Your task to perform on an android device: Open ESPN.com Image 0: 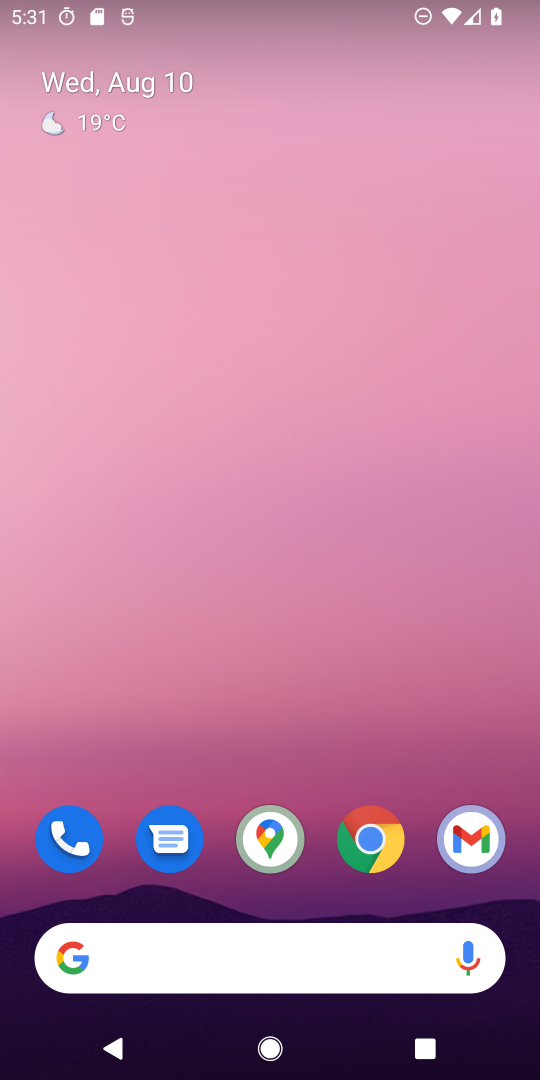
Step 0: click (148, 944)
Your task to perform on an android device: Open ESPN.com Image 1: 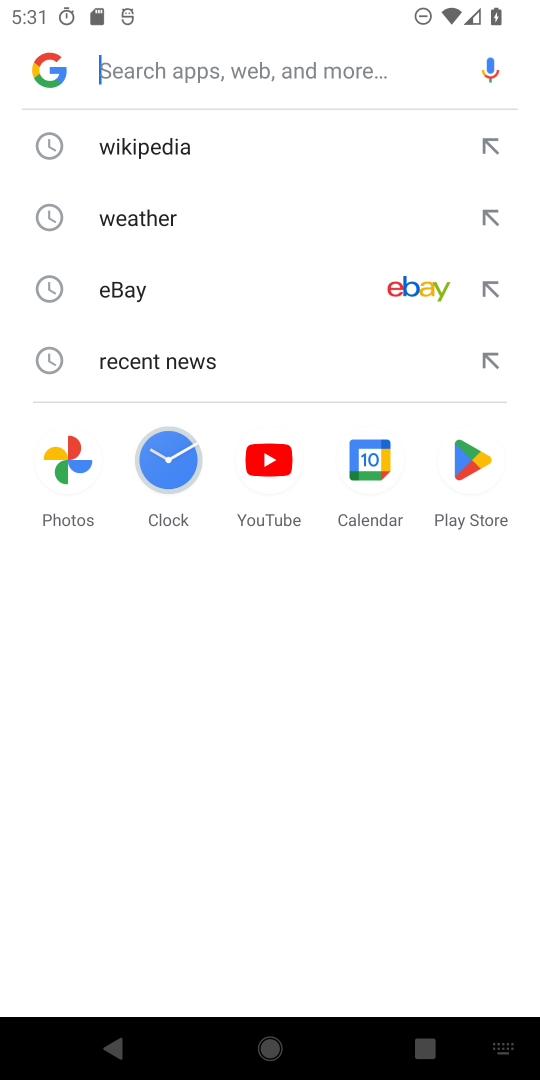
Step 1: type "ESPN.com"
Your task to perform on an android device: Open ESPN.com Image 2: 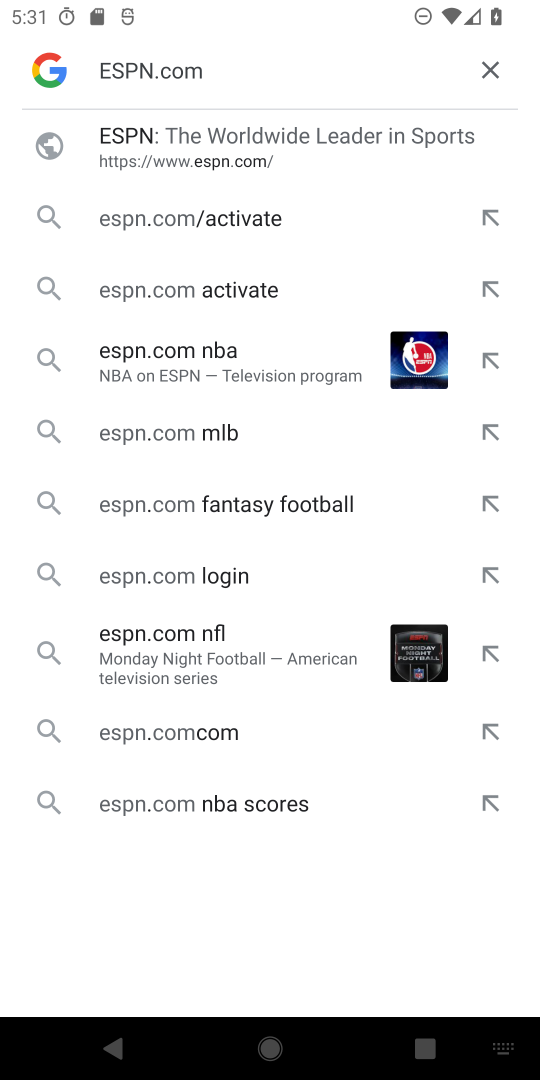
Step 2: click (141, 146)
Your task to perform on an android device: Open ESPN.com Image 3: 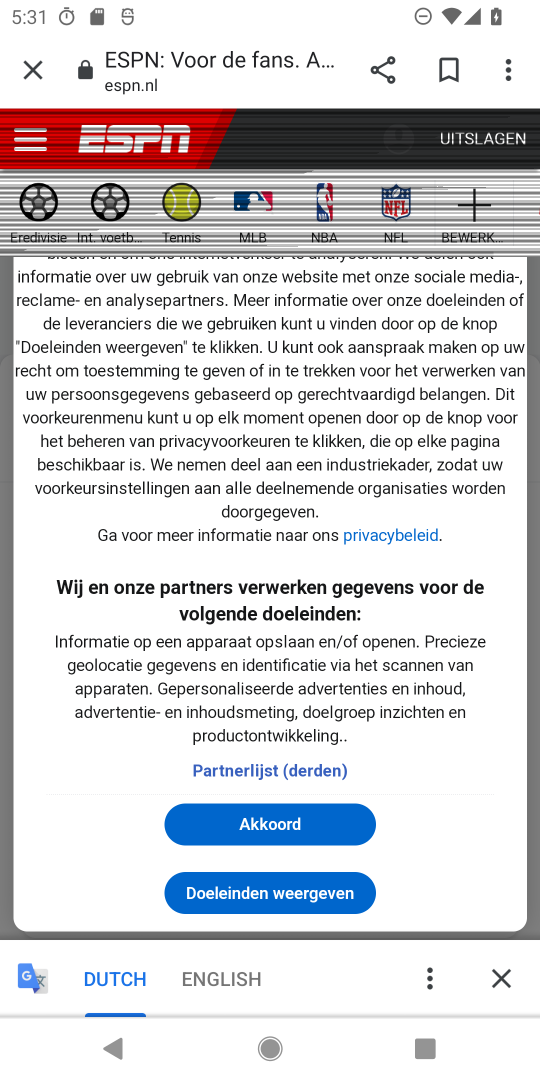
Step 3: task complete